Your task to perform on an android device: Open display settings Image 0: 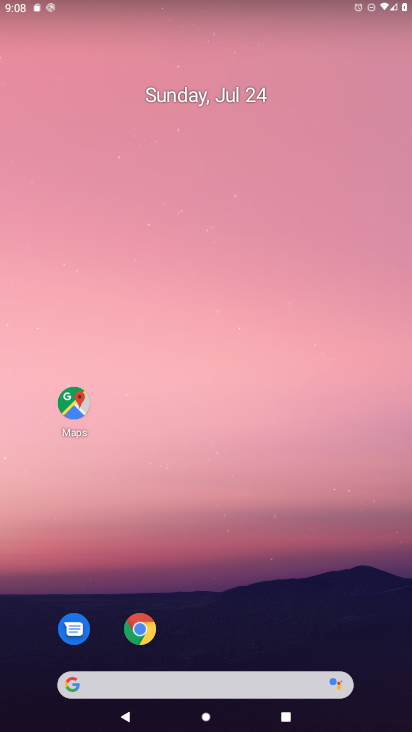
Step 0: drag from (337, 612) to (149, 139)
Your task to perform on an android device: Open display settings Image 1: 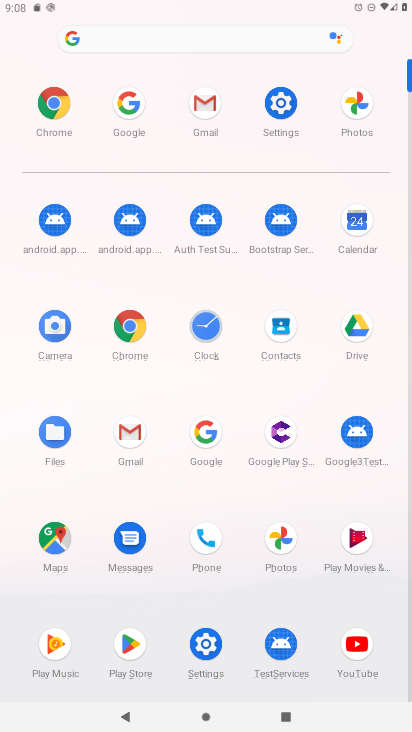
Step 1: click (213, 648)
Your task to perform on an android device: Open display settings Image 2: 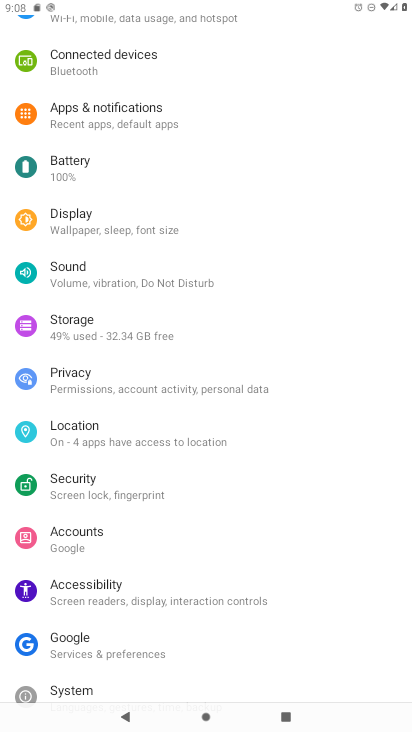
Step 2: click (92, 228)
Your task to perform on an android device: Open display settings Image 3: 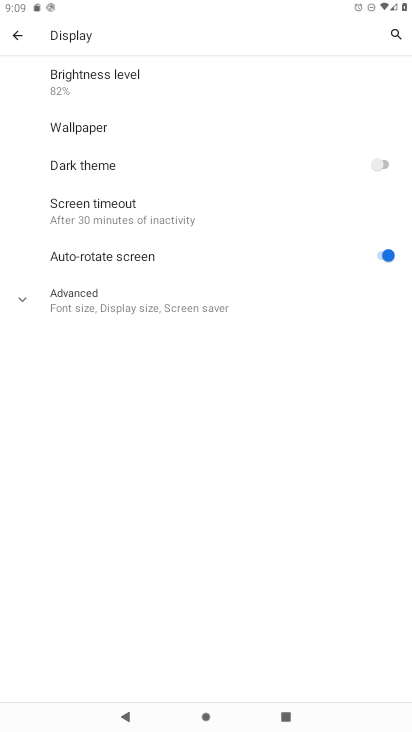
Step 3: task complete